Your task to perform on an android device: Search for pizza restaurants on Maps Image 0: 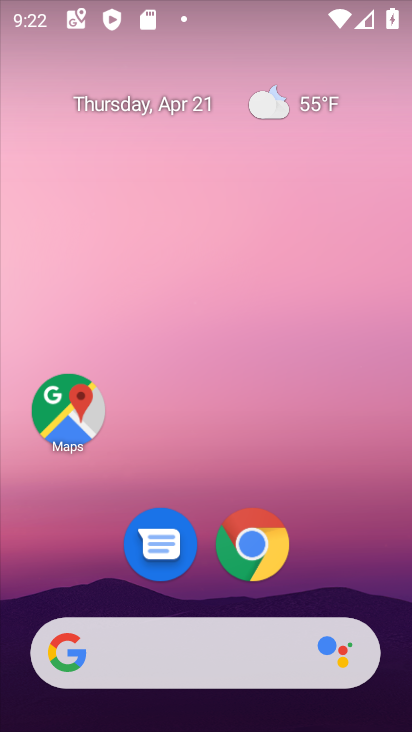
Step 0: drag from (380, 554) to (319, 25)
Your task to perform on an android device: Search for pizza restaurants on Maps Image 1: 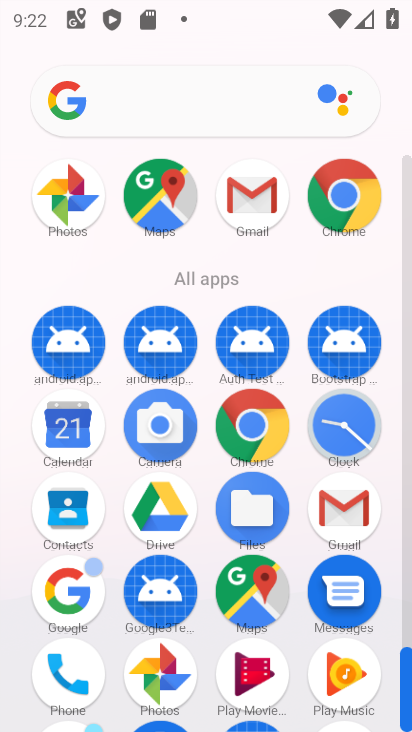
Step 1: drag from (7, 577) to (15, 215)
Your task to perform on an android device: Search for pizza restaurants on Maps Image 2: 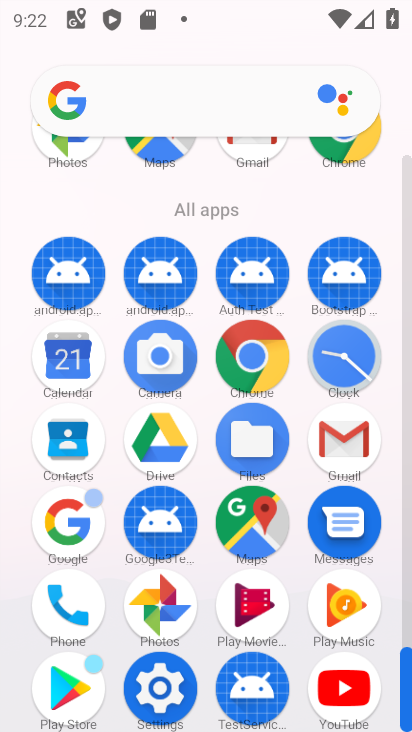
Step 2: click (253, 518)
Your task to perform on an android device: Search for pizza restaurants on Maps Image 3: 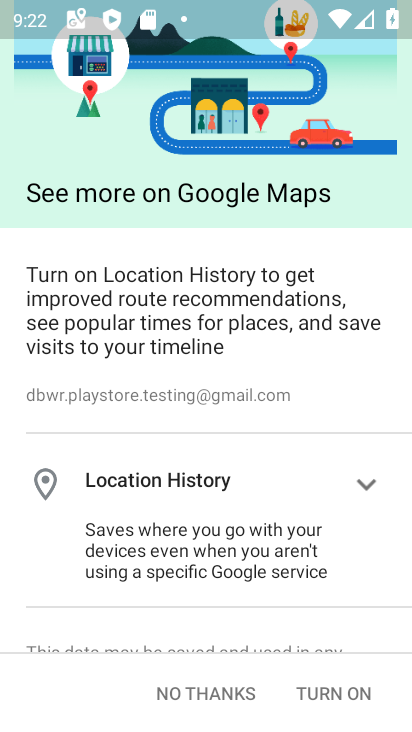
Step 3: click (324, 695)
Your task to perform on an android device: Search for pizza restaurants on Maps Image 4: 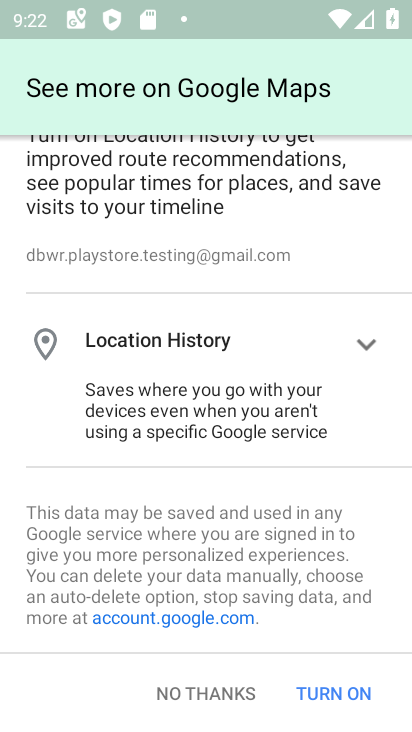
Step 4: click (324, 695)
Your task to perform on an android device: Search for pizza restaurants on Maps Image 5: 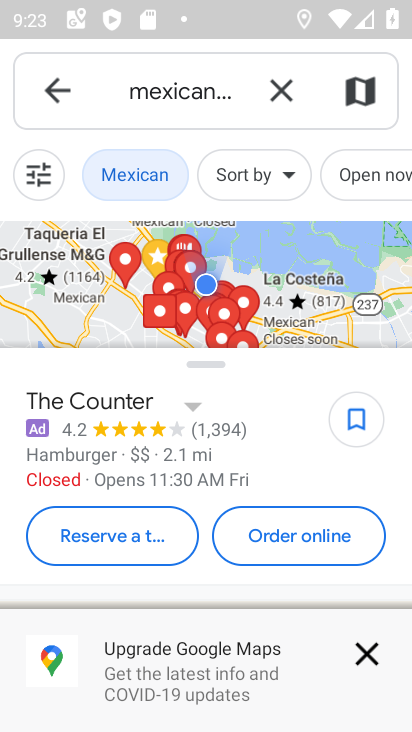
Step 5: task complete